Your task to perform on an android device: toggle sleep mode Image 0: 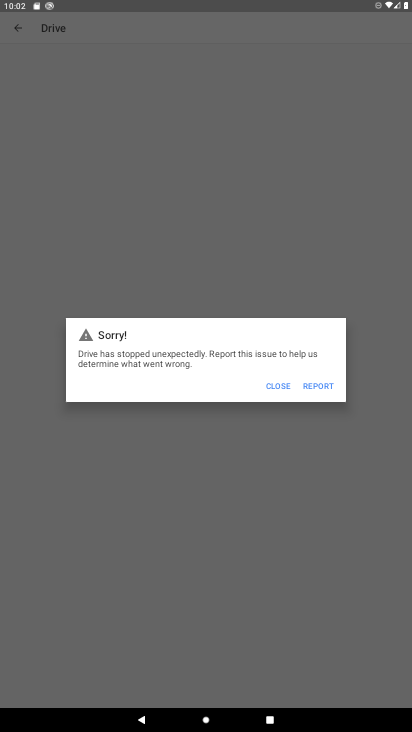
Step 0: press home button
Your task to perform on an android device: toggle sleep mode Image 1: 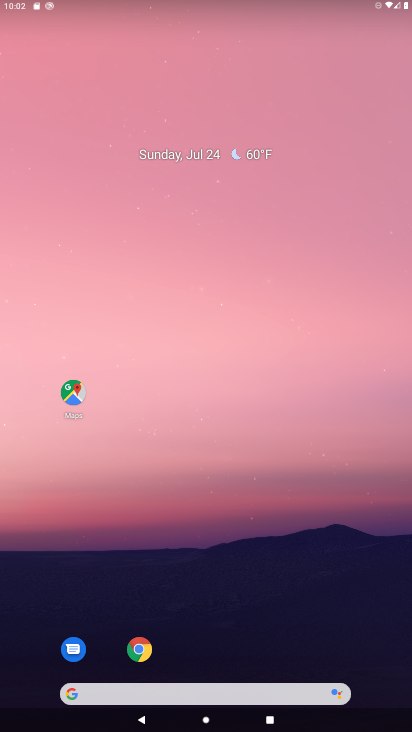
Step 1: drag from (357, 613) to (233, 87)
Your task to perform on an android device: toggle sleep mode Image 2: 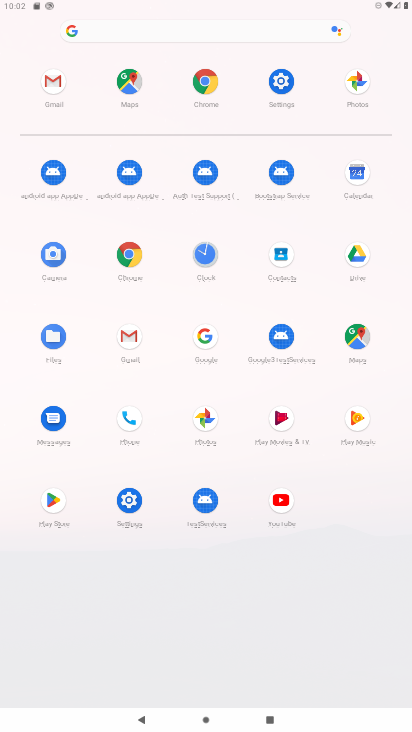
Step 2: click (285, 81)
Your task to perform on an android device: toggle sleep mode Image 3: 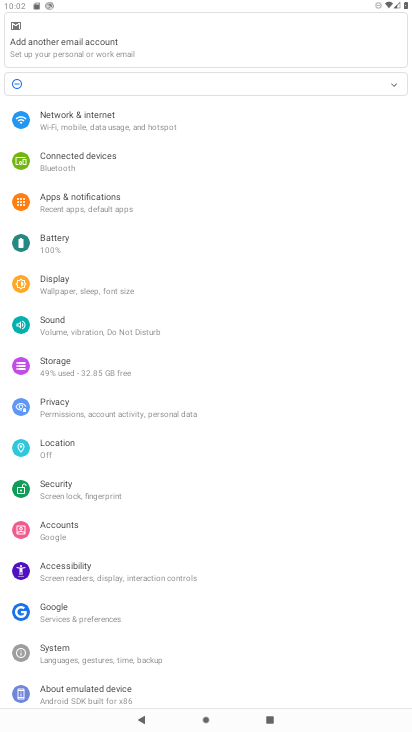
Step 3: click (89, 285)
Your task to perform on an android device: toggle sleep mode Image 4: 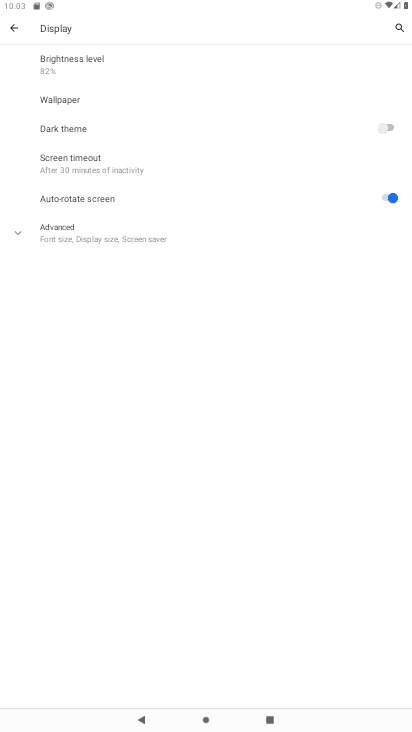
Step 4: click (76, 164)
Your task to perform on an android device: toggle sleep mode Image 5: 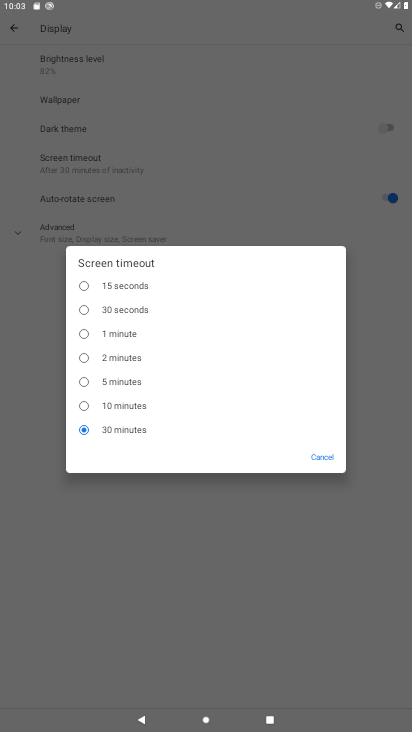
Step 5: click (121, 405)
Your task to perform on an android device: toggle sleep mode Image 6: 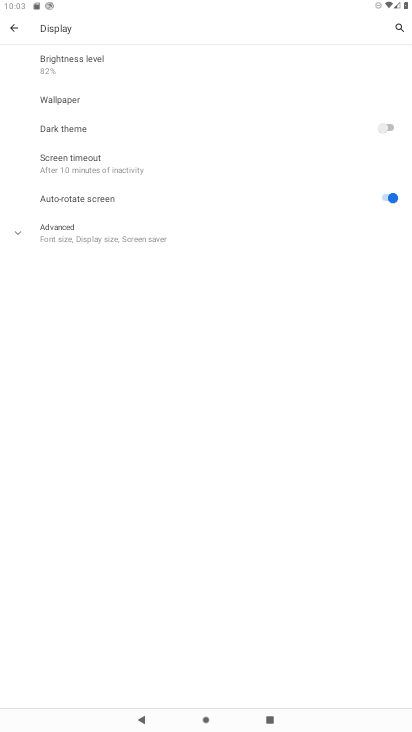
Step 6: task complete